Your task to perform on an android device: Go to sound settings Image 0: 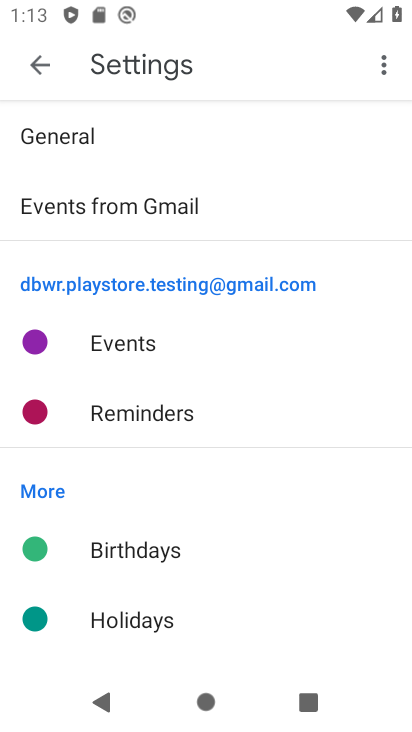
Step 0: press home button
Your task to perform on an android device: Go to sound settings Image 1: 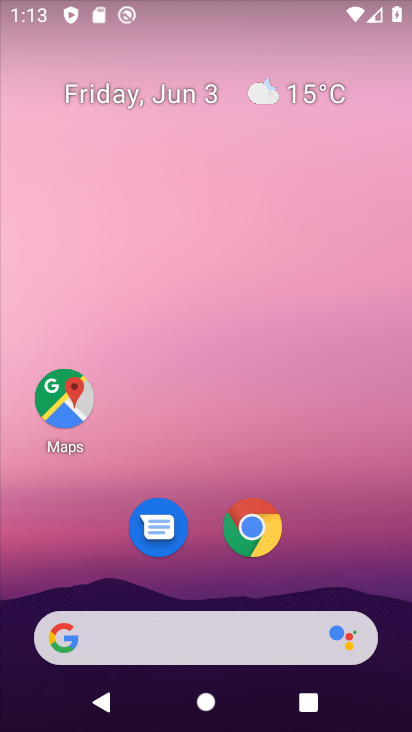
Step 1: drag from (337, 582) to (309, 5)
Your task to perform on an android device: Go to sound settings Image 2: 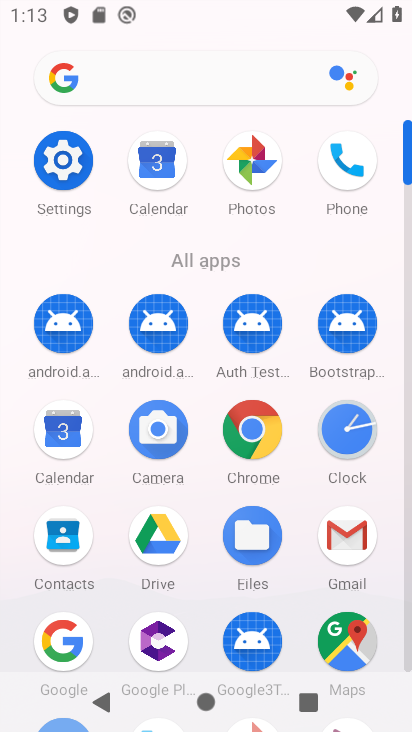
Step 2: click (58, 182)
Your task to perform on an android device: Go to sound settings Image 3: 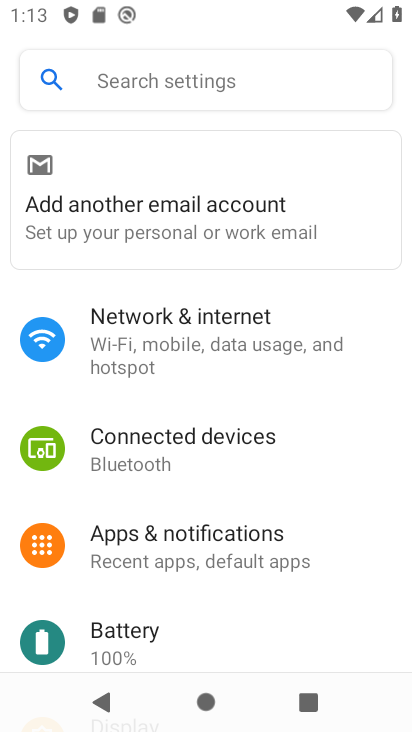
Step 3: drag from (206, 587) to (219, 312)
Your task to perform on an android device: Go to sound settings Image 4: 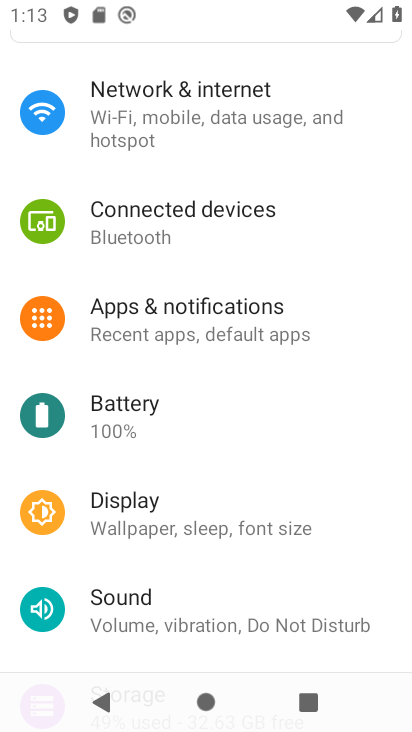
Step 4: click (235, 631)
Your task to perform on an android device: Go to sound settings Image 5: 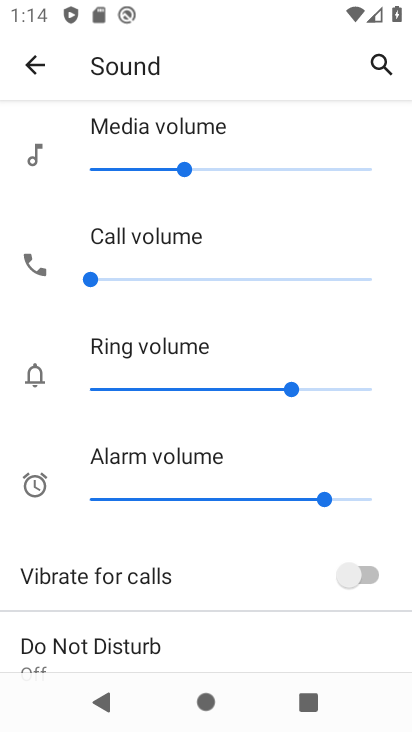
Step 5: task complete